Your task to perform on an android device: open device folders in google photos Image 0: 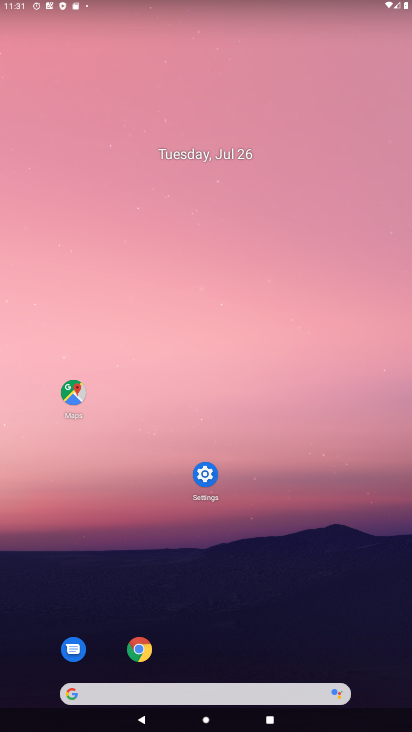
Step 0: drag from (255, 316) to (246, 168)
Your task to perform on an android device: open device folders in google photos Image 1: 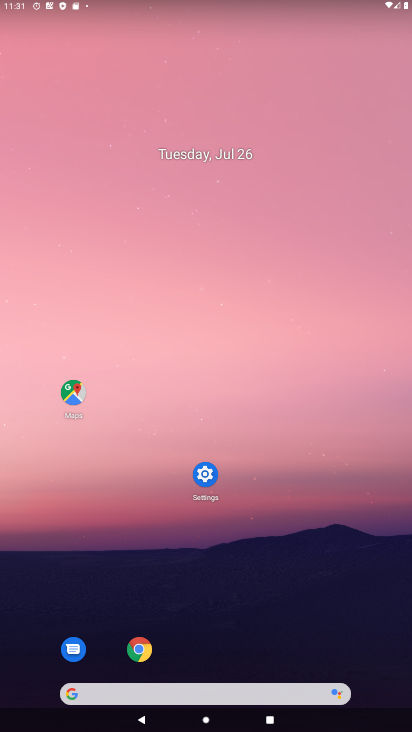
Step 1: drag from (208, 299) to (205, 174)
Your task to perform on an android device: open device folders in google photos Image 2: 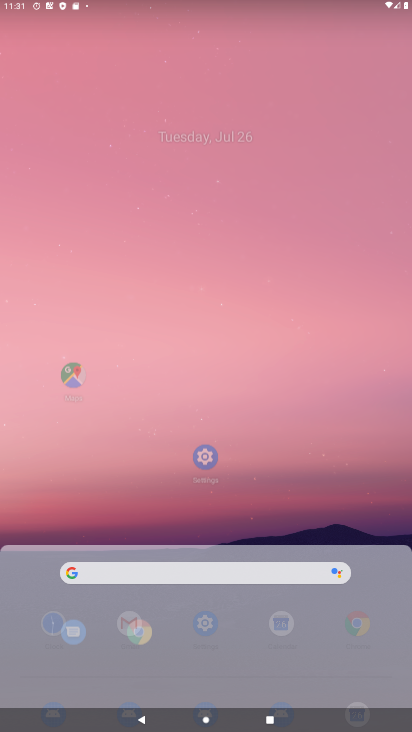
Step 2: drag from (218, 159) to (307, 142)
Your task to perform on an android device: open device folders in google photos Image 3: 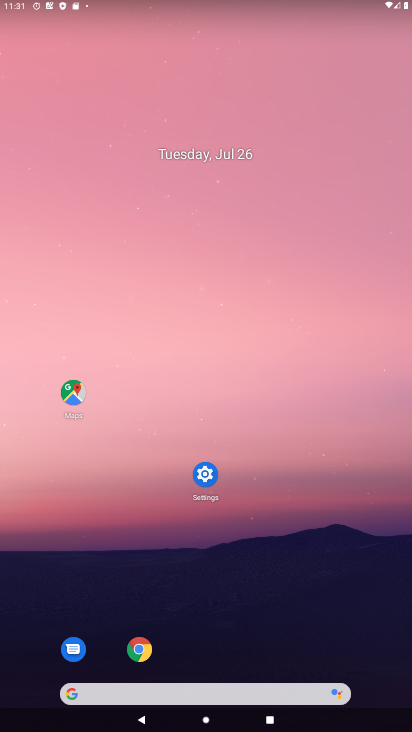
Step 3: drag from (277, 359) to (259, 213)
Your task to perform on an android device: open device folders in google photos Image 4: 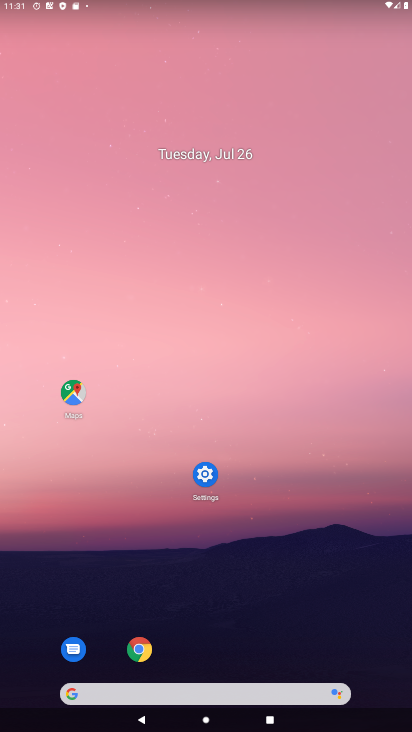
Step 4: drag from (320, 134) to (284, 104)
Your task to perform on an android device: open device folders in google photos Image 5: 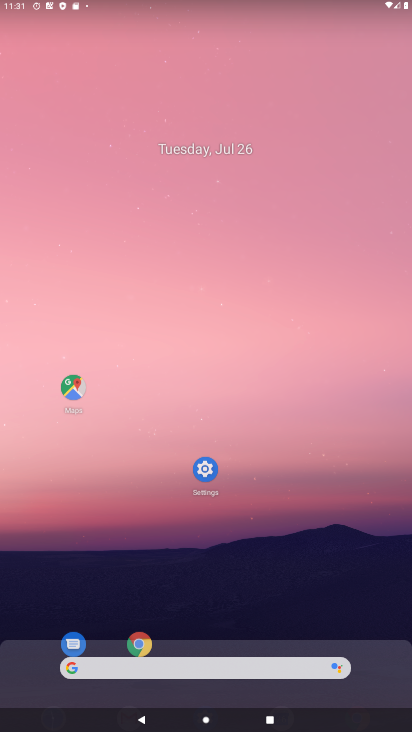
Step 5: drag from (235, 454) to (232, 181)
Your task to perform on an android device: open device folders in google photos Image 6: 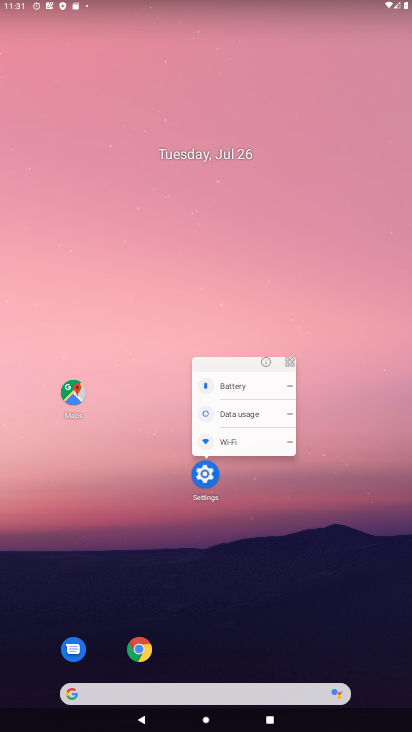
Step 6: drag from (289, 259) to (326, 208)
Your task to perform on an android device: open device folders in google photos Image 7: 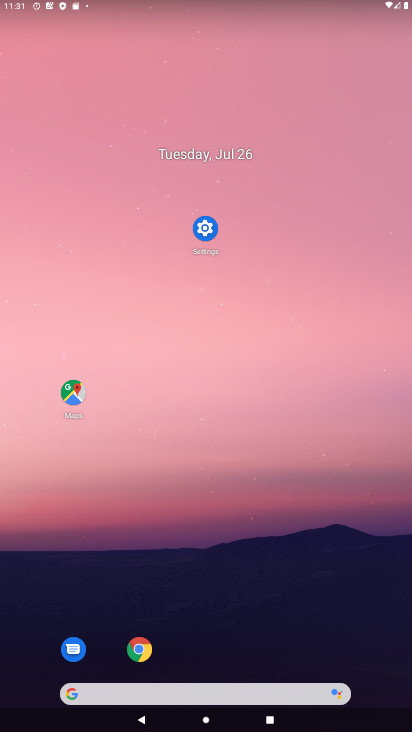
Step 7: drag from (172, 611) to (154, 299)
Your task to perform on an android device: open device folders in google photos Image 8: 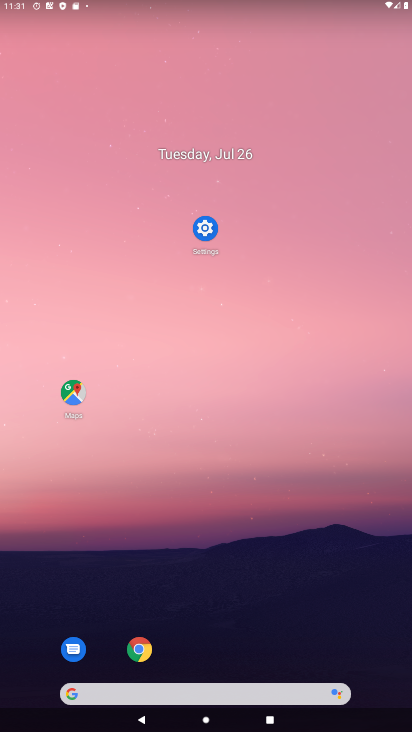
Step 8: drag from (231, 456) to (232, 211)
Your task to perform on an android device: open device folders in google photos Image 9: 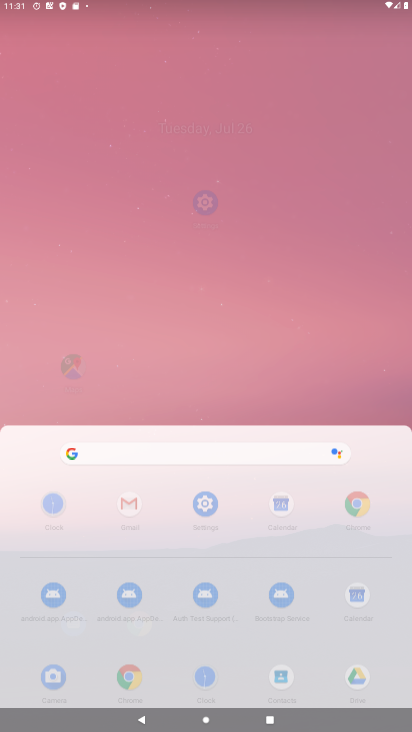
Step 9: drag from (189, 389) to (188, 120)
Your task to perform on an android device: open device folders in google photos Image 10: 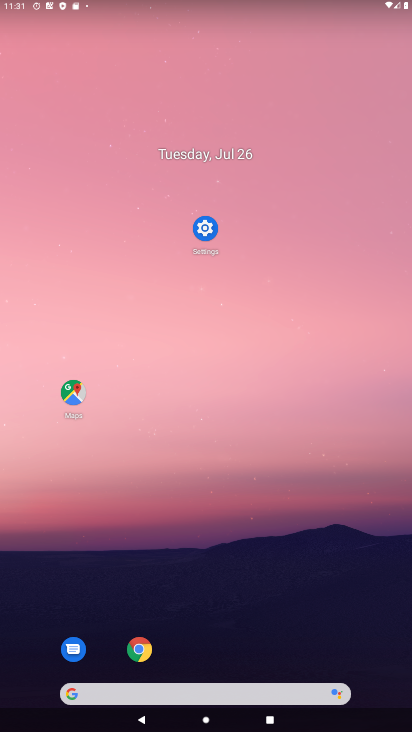
Step 10: drag from (187, 525) to (228, 182)
Your task to perform on an android device: open device folders in google photos Image 11: 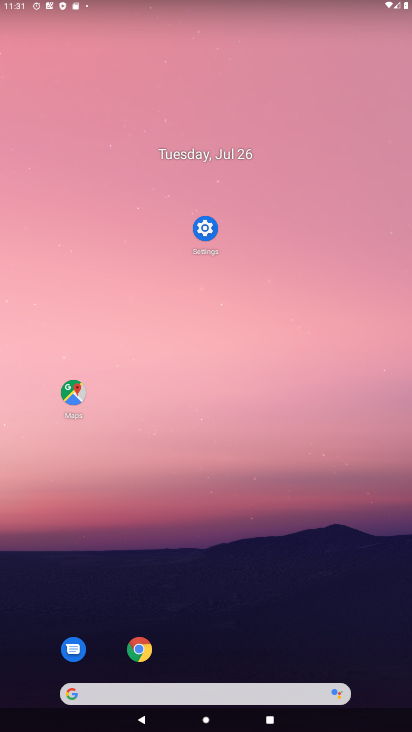
Step 11: drag from (223, 488) to (185, 132)
Your task to perform on an android device: open device folders in google photos Image 12: 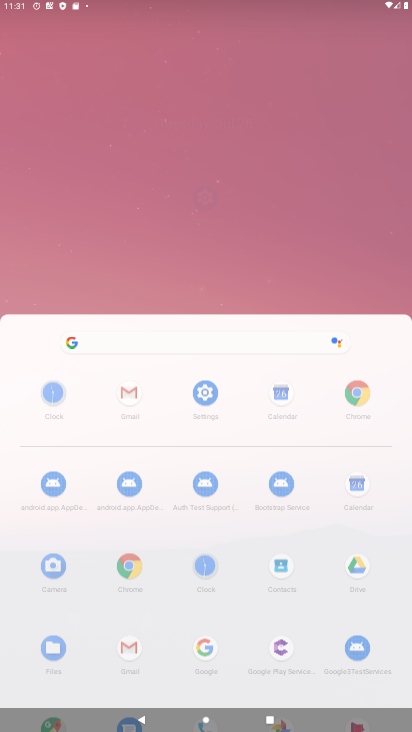
Step 12: drag from (194, 468) to (170, 264)
Your task to perform on an android device: open device folders in google photos Image 13: 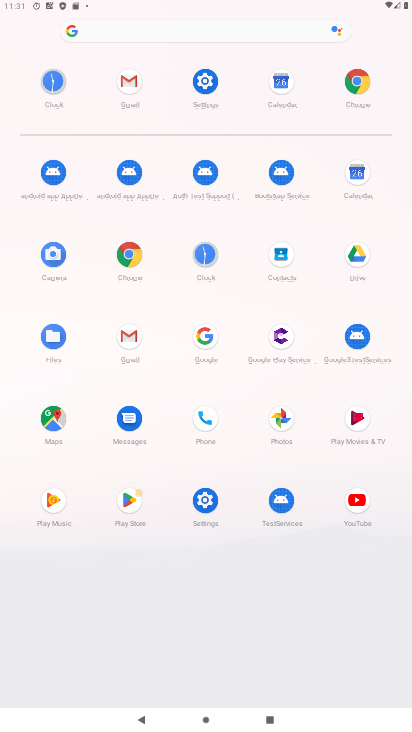
Step 13: drag from (243, 422) to (268, 189)
Your task to perform on an android device: open device folders in google photos Image 14: 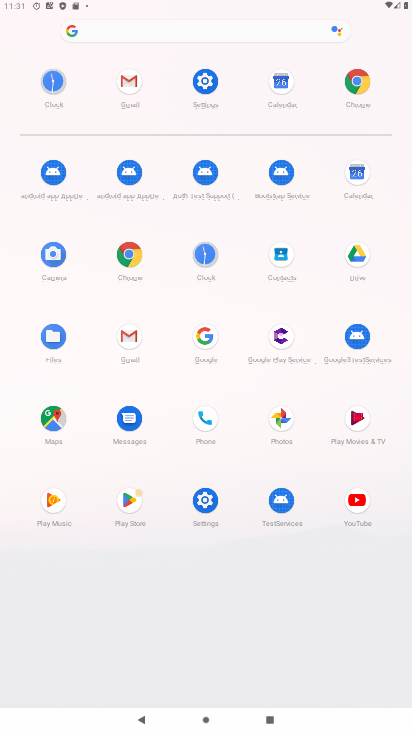
Step 14: click (276, 411)
Your task to perform on an android device: open device folders in google photos Image 15: 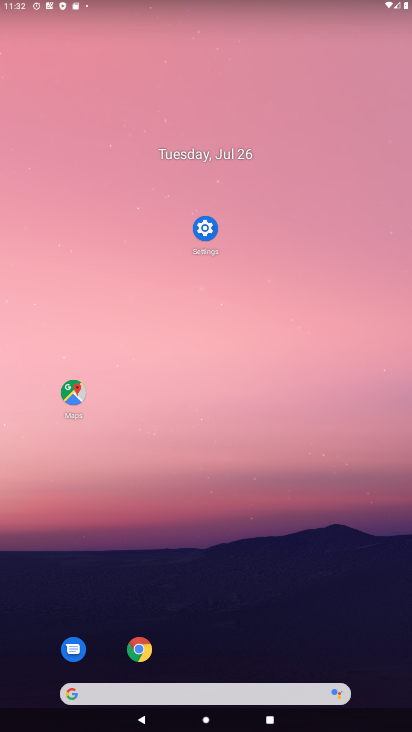
Step 15: drag from (223, 509) to (218, 145)
Your task to perform on an android device: open device folders in google photos Image 16: 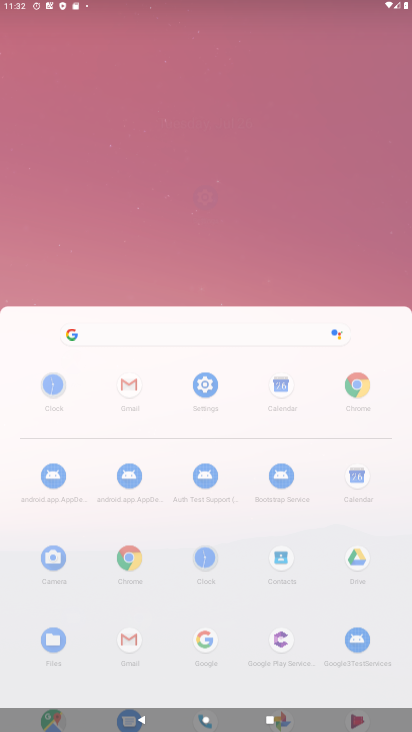
Step 16: drag from (277, 519) to (245, 192)
Your task to perform on an android device: open device folders in google photos Image 17: 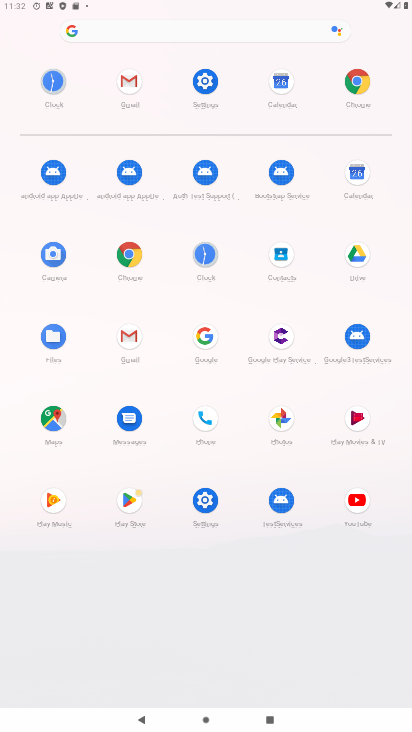
Step 17: drag from (230, 525) to (174, 163)
Your task to perform on an android device: open device folders in google photos Image 18: 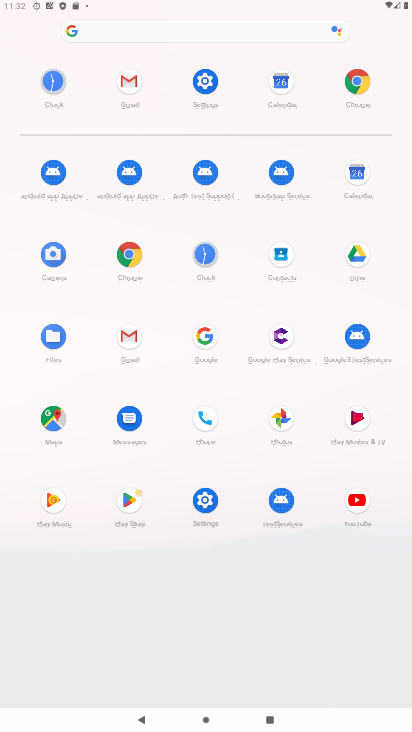
Step 18: drag from (213, 577) to (221, 285)
Your task to perform on an android device: open device folders in google photos Image 19: 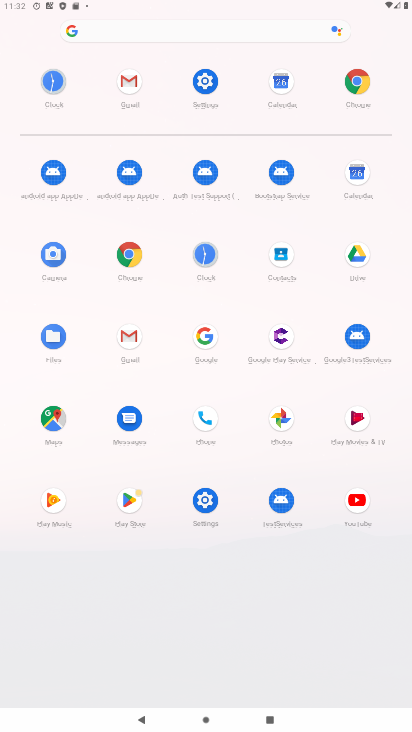
Step 19: click (282, 409)
Your task to perform on an android device: open device folders in google photos Image 20: 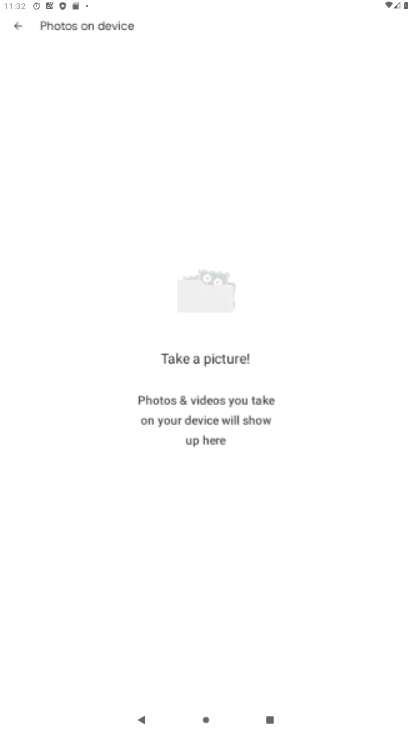
Step 20: click (281, 410)
Your task to perform on an android device: open device folders in google photos Image 21: 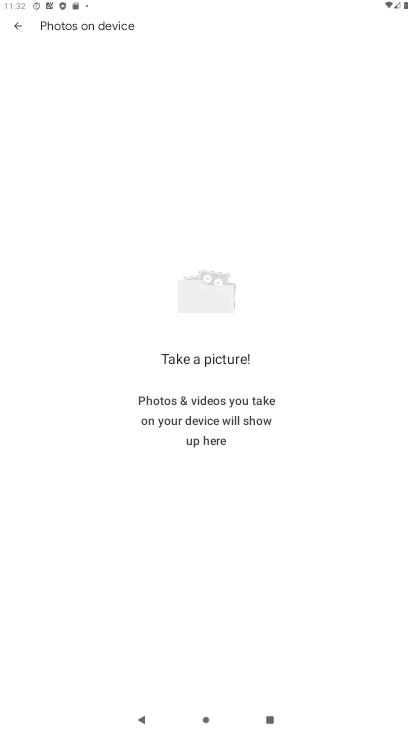
Step 21: click (280, 409)
Your task to perform on an android device: open device folders in google photos Image 22: 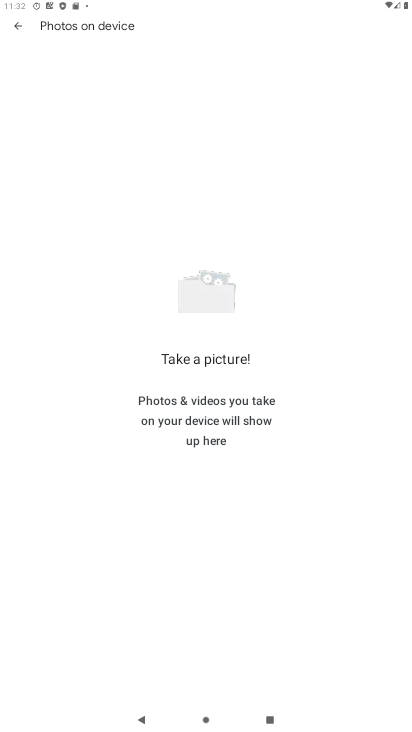
Step 22: click (279, 408)
Your task to perform on an android device: open device folders in google photos Image 23: 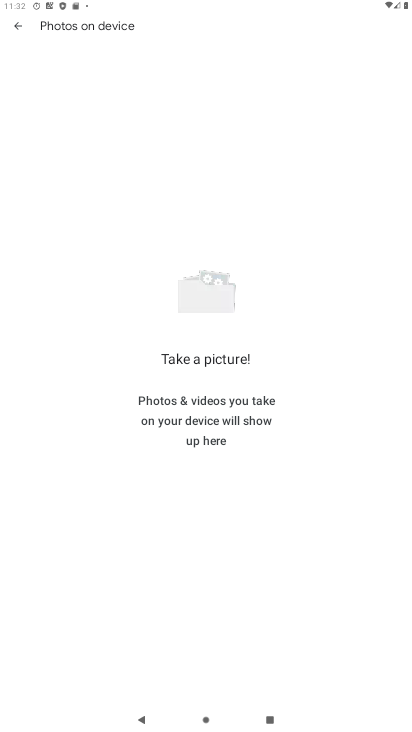
Step 23: click (9, 25)
Your task to perform on an android device: open device folders in google photos Image 24: 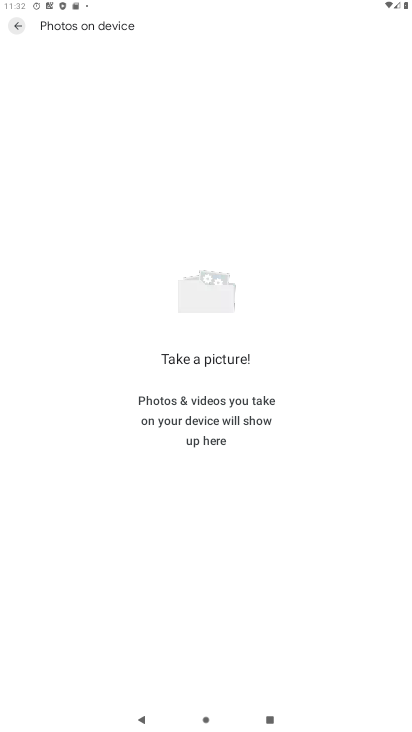
Step 24: click (7, 25)
Your task to perform on an android device: open device folders in google photos Image 25: 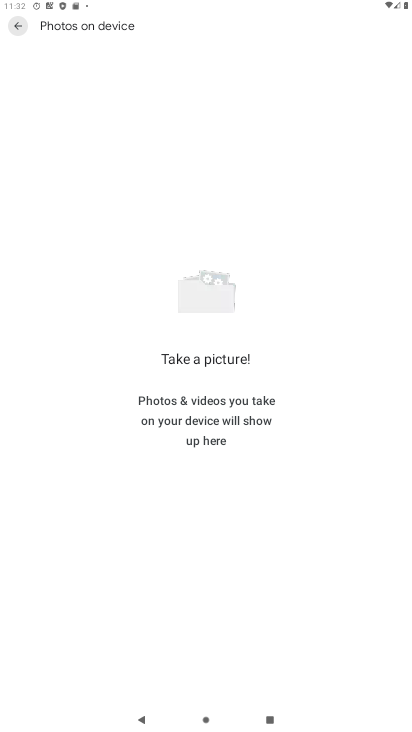
Step 25: click (7, 25)
Your task to perform on an android device: open device folders in google photos Image 26: 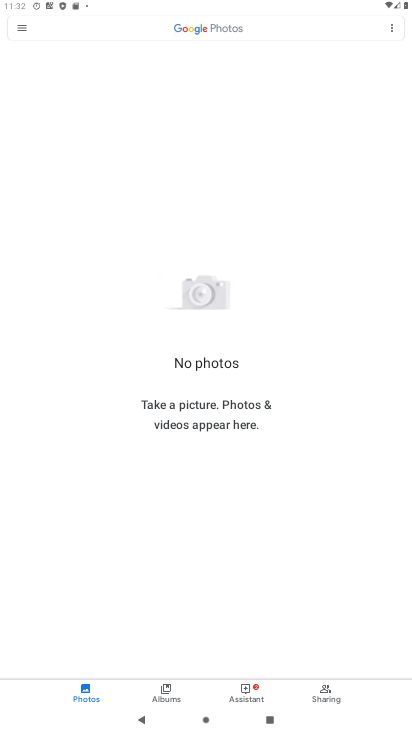
Step 26: drag from (22, 27) to (96, 268)
Your task to perform on an android device: open device folders in google photos Image 27: 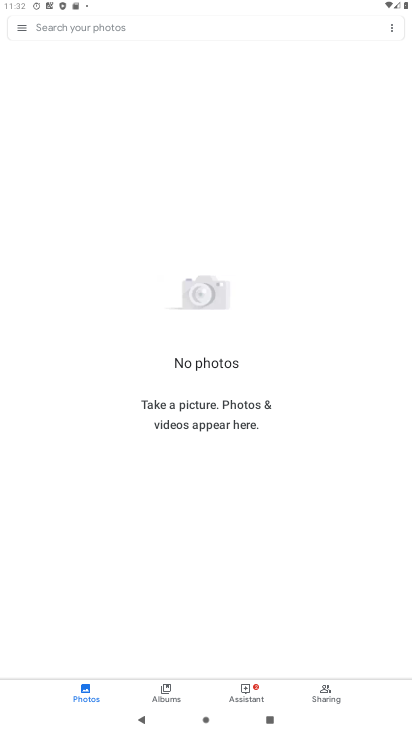
Step 27: click (22, 21)
Your task to perform on an android device: open device folders in google photos Image 28: 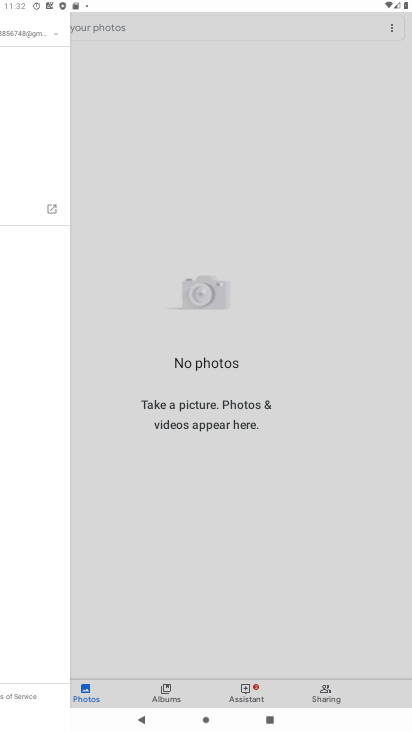
Step 28: click (30, 42)
Your task to perform on an android device: open device folders in google photos Image 29: 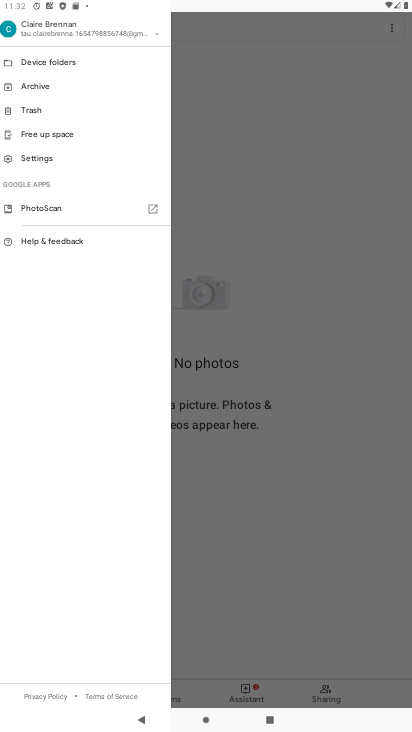
Step 29: click (26, 45)
Your task to perform on an android device: open device folders in google photos Image 30: 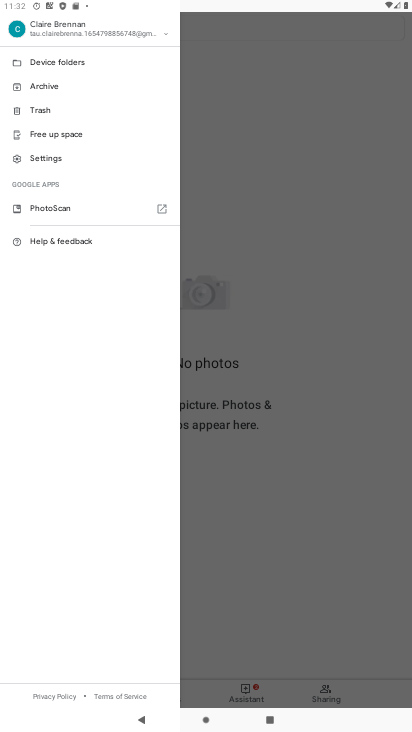
Step 30: click (46, 74)
Your task to perform on an android device: open device folders in google photos Image 31: 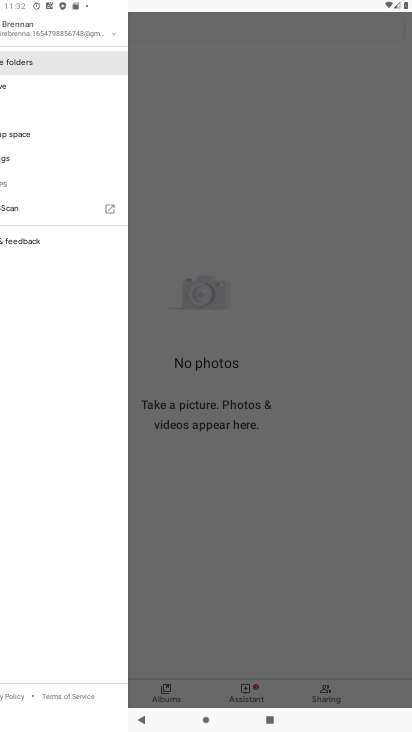
Step 31: click (46, 74)
Your task to perform on an android device: open device folders in google photos Image 32: 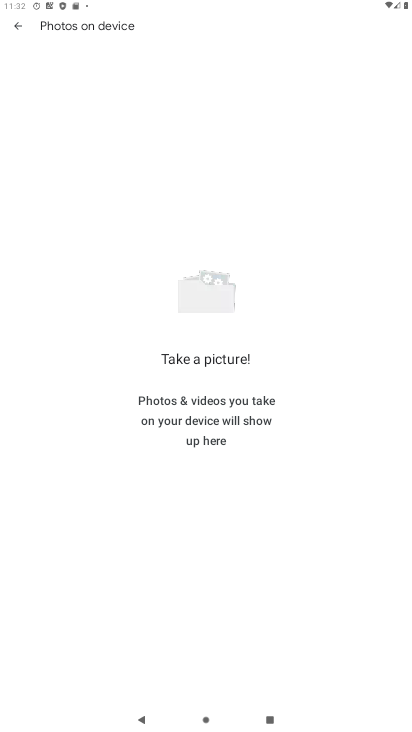
Step 32: task complete